Your task to perform on an android device: turn on showing notifications on the lock screen Image 0: 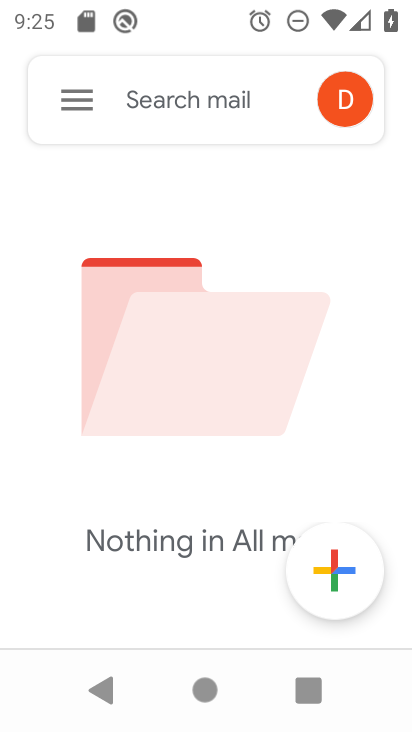
Step 0: press home button
Your task to perform on an android device: turn on showing notifications on the lock screen Image 1: 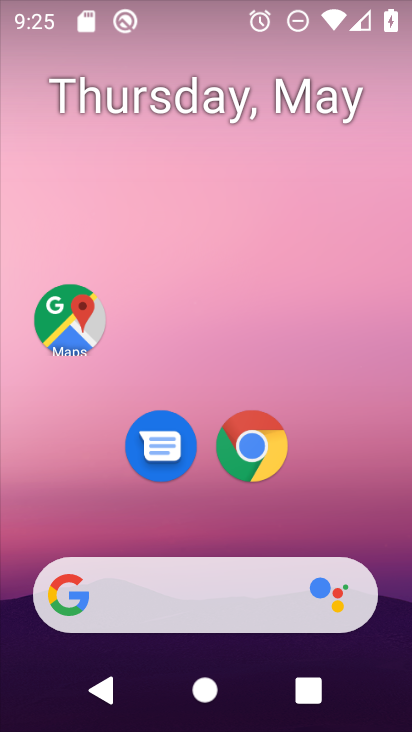
Step 1: drag from (372, 497) to (365, 113)
Your task to perform on an android device: turn on showing notifications on the lock screen Image 2: 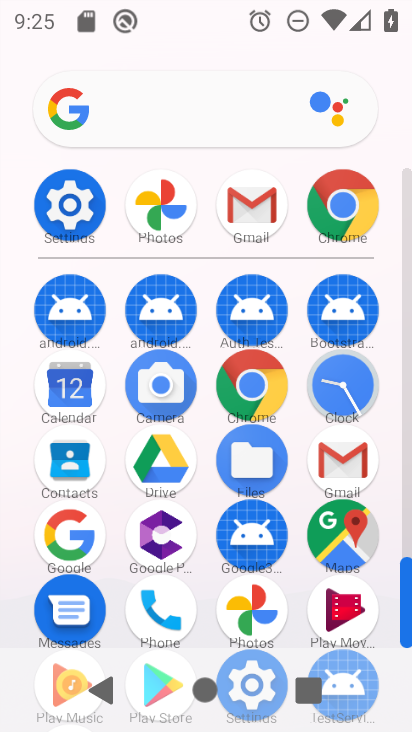
Step 2: click (67, 214)
Your task to perform on an android device: turn on showing notifications on the lock screen Image 3: 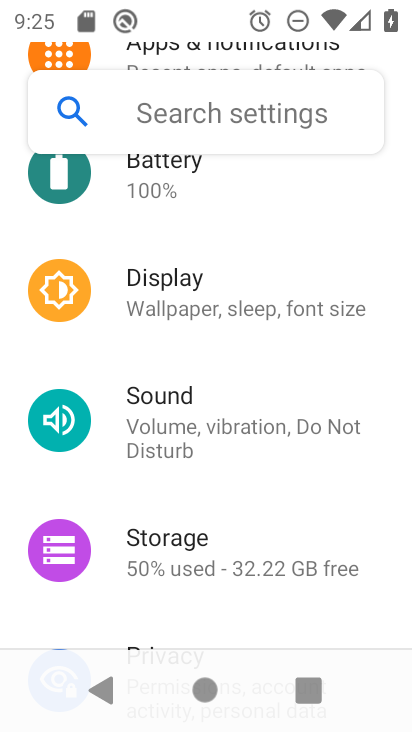
Step 3: drag from (286, 210) to (290, 493)
Your task to perform on an android device: turn on showing notifications on the lock screen Image 4: 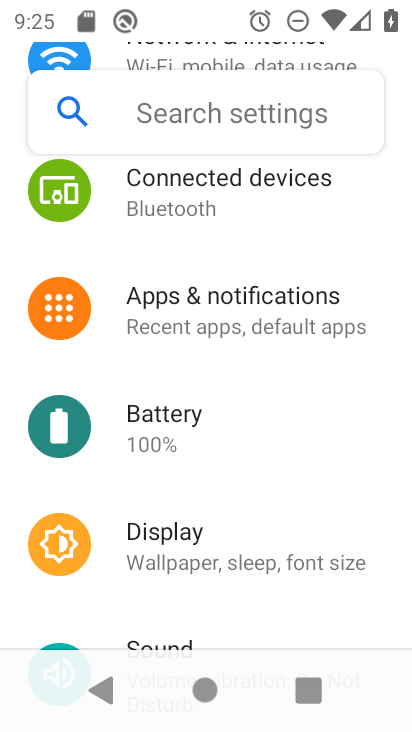
Step 4: click (250, 311)
Your task to perform on an android device: turn on showing notifications on the lock screen Image 5: 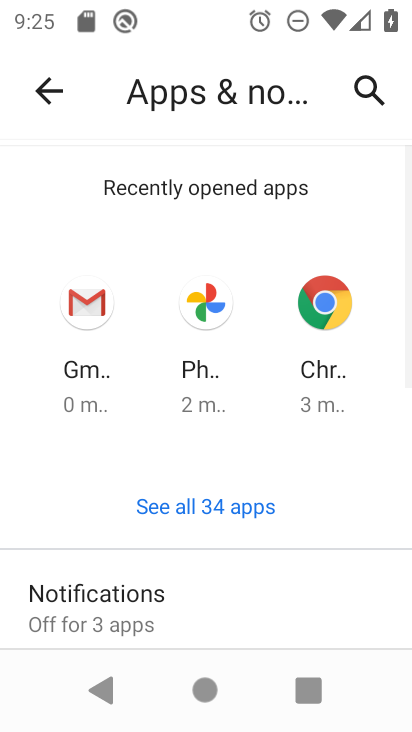
Step 5: drag from (266, 598) to (272, 259)
Your task to perform on an android device: turn on showing notifications on the lock screen Image 6: 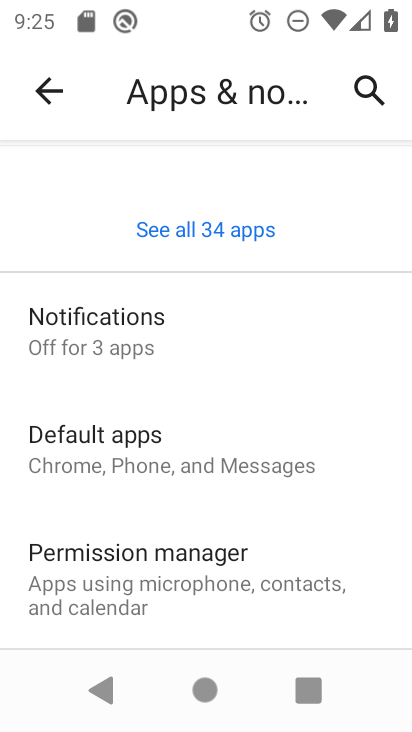
Step 6: click (132, 334)
Your task to perform on an android device: turn on showing notifications on the lock screen Image 7: 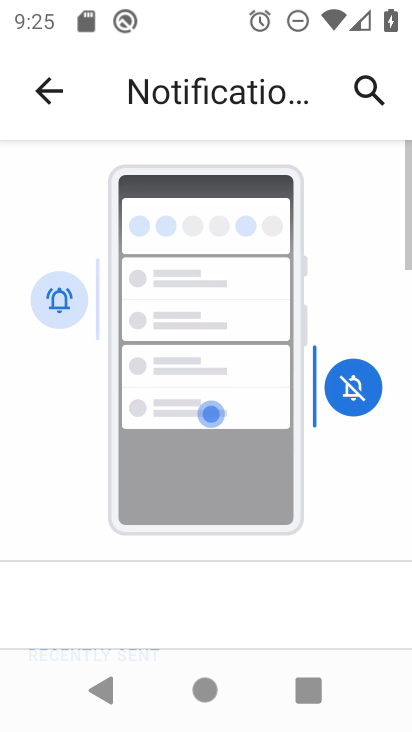
Step 7: drag from (249, 591) to (296, 215)
Your task to perform on an android device: turn on showing notifications on the lock screen Image 8: 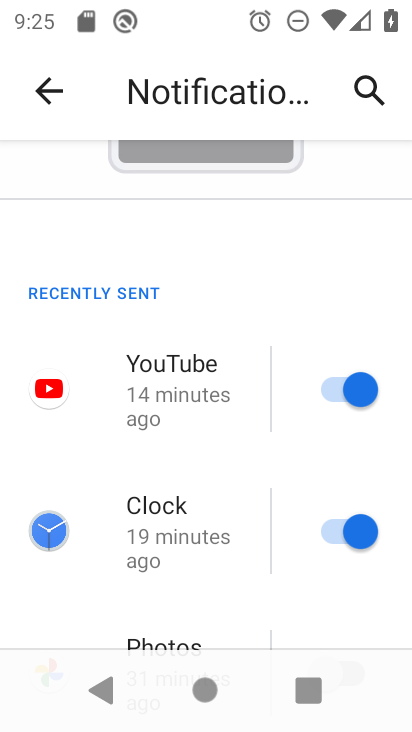
Step 8: drag from (231, 546) to (286, 195)
Your task to perform on an android device: turn on showing notifications on the lock screen Image 9: 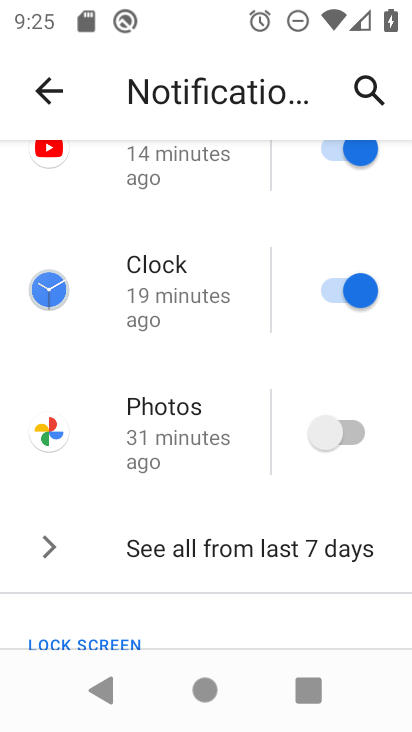
Step 9: drag from (190, 601) to (226, 291)
Your task to perform on an android device: turn on showing notifications on the lock screen Image 10: 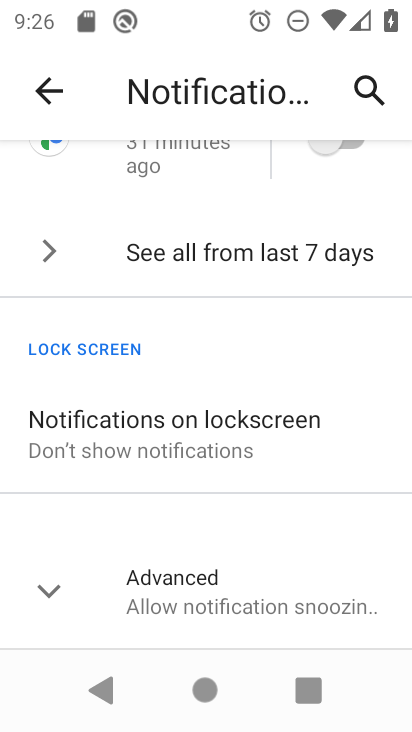
Step 10: click (215, 436)
Your task to perform on an android device: turn on showing notifications on the lock screen Image 11: 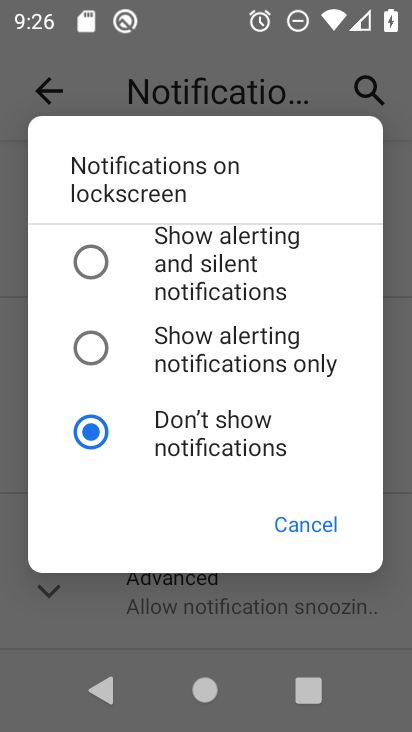
Step 11: click (96, 252)
Your task to perform on an android device: turn on showing notifications on the lock screen Image 12: 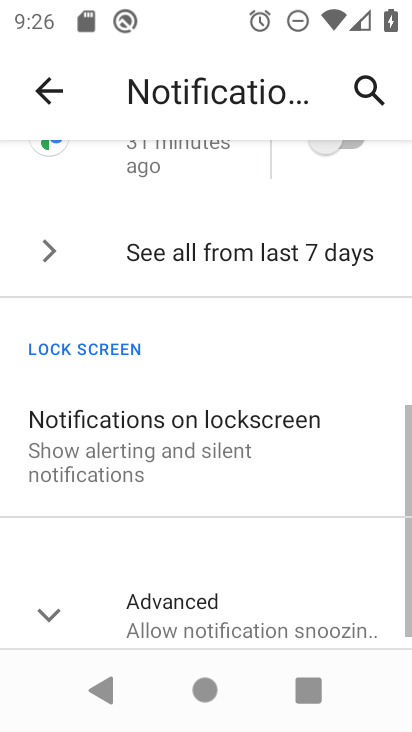
Step 12: task complete